Your task to perform on an android device: check the backup settings in the google photos Image 0: 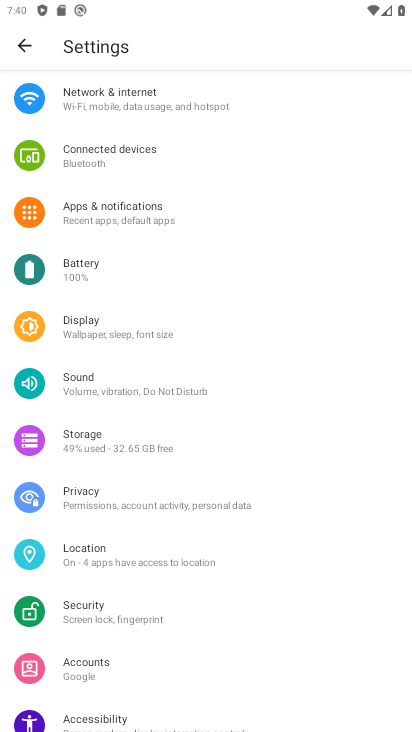
Step 0: press home button
Your task to perform on an android device: check the backup settings in the google photos Image 1: 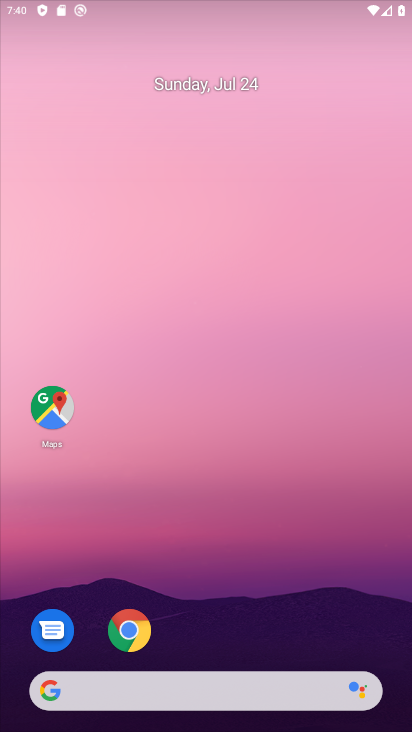
Step 1: drag from (262, 652) to (206, 74)
Your task to perform on an android device: check the backup settings in the google photos Image 2: 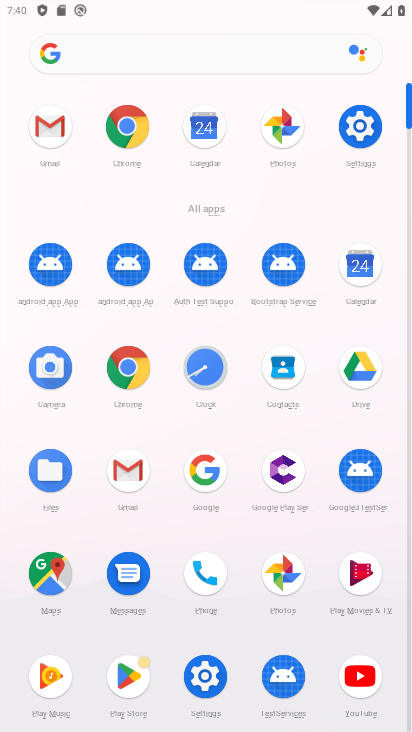
Step 2: click (286, 129)
Your task to perform on an android device: check the backup settings in the google photos Image 3: 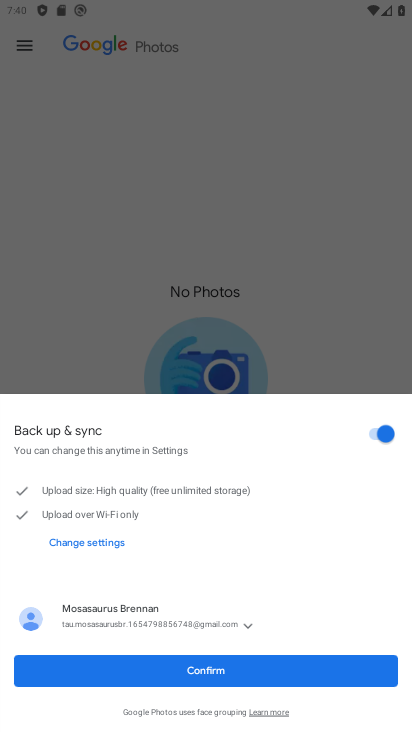
Step 3: click (153, 666)
Your task to perform on an android device: check the backup settings in the google photos Image 4: 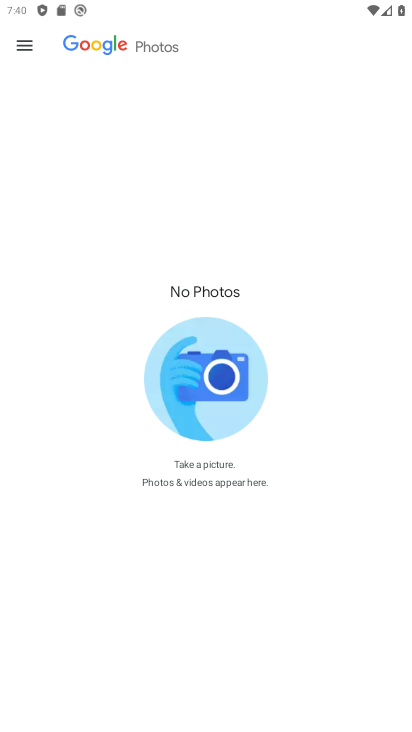
Step 4: click (25, 53)
Your task to perform on an android device: check the backup settings in the google photos Image 5: 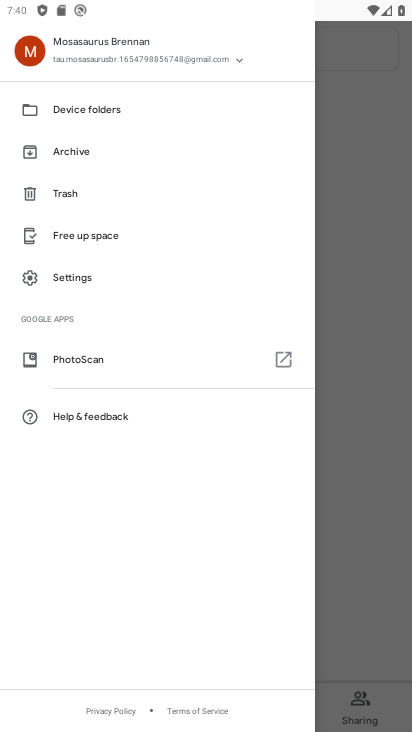
Step 5: click (80, 274)
Your task to perform on an android device: check the backup settings in the google photos Image 6: 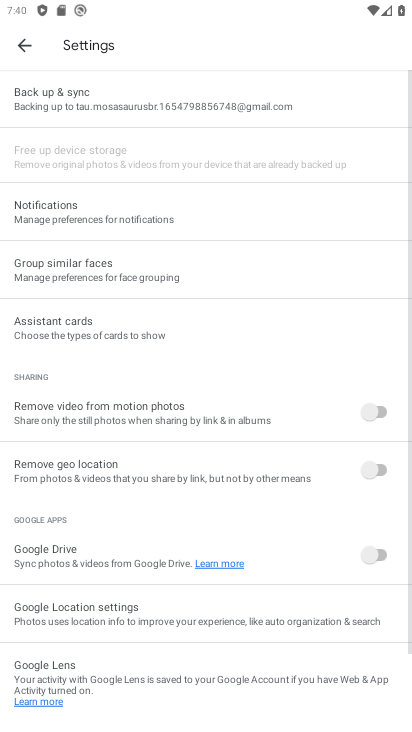
Step 6: click (80, 116)
Your task to perform on an android device: check the backup settings in the google photos Image 7: 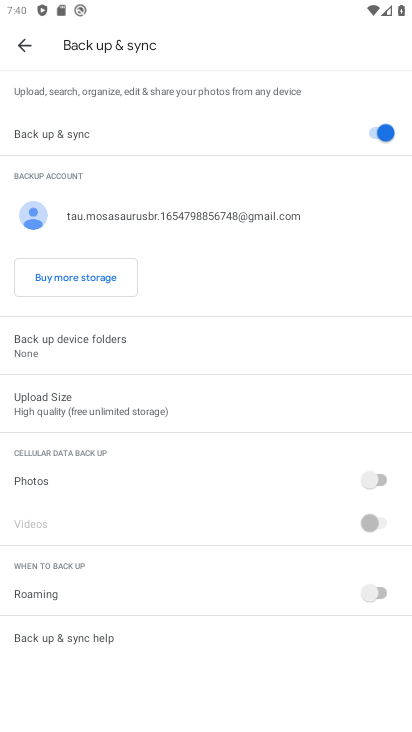
Step 7: task complete